Your task to perform on an android device: turn notification dots off Image 0: 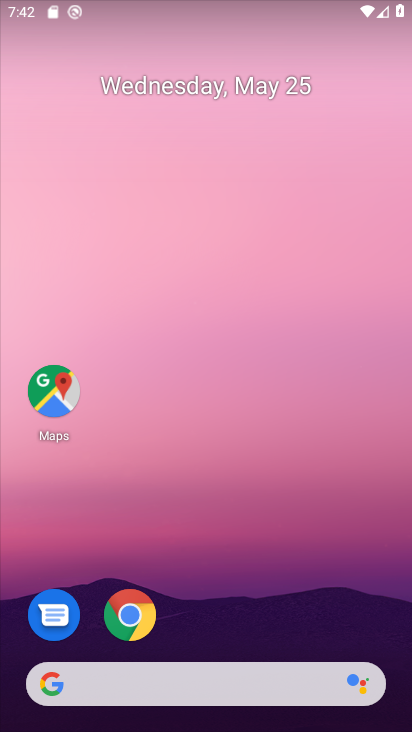
Step 0: drag from (240, 546) to (230, 64)
Your task to perform on an android device: turn notification dots off Image 1: 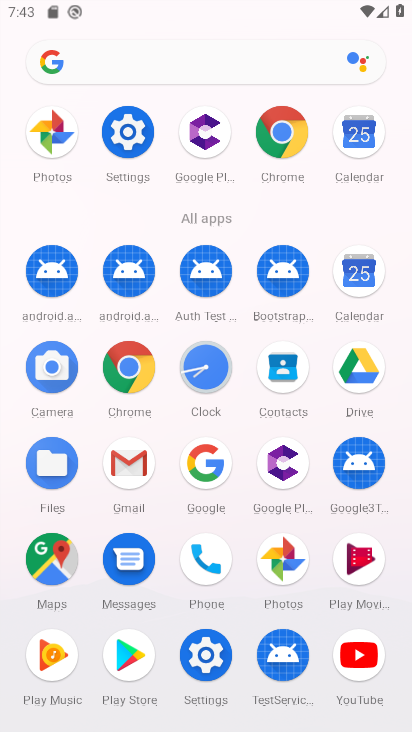
Step 1: click (127, 132)
Your task to perform on an android device: turn notification dots off Image 2: 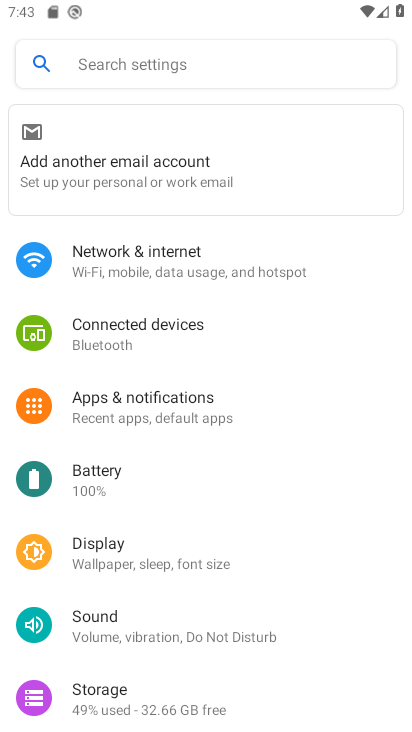
Step 2: click (198, 409)
Your task to perform on an android device: turn notification dots off Image 3: 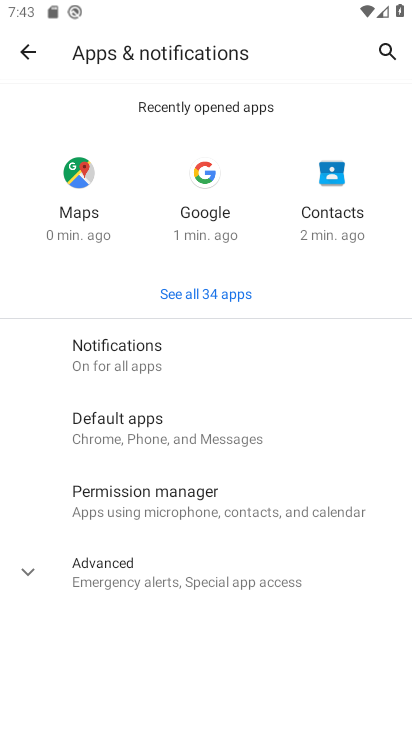
Step 3: click (36, 579)
Your task to perform on an android device: turn notification dots off Image 4: 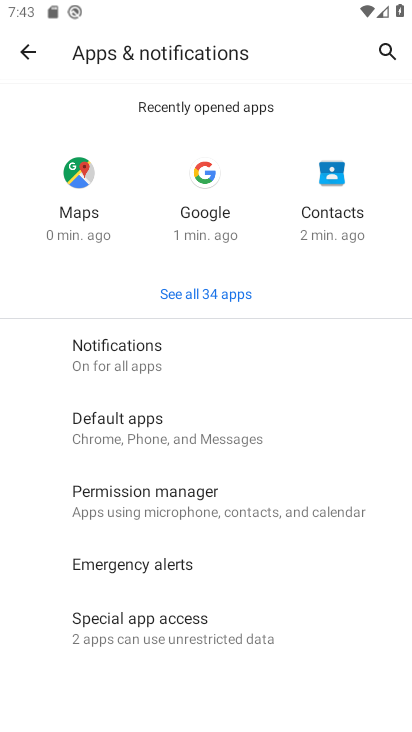
Step 4: click (165, 365)
Your task to perform on an android device: turn notification dots off Image 5: 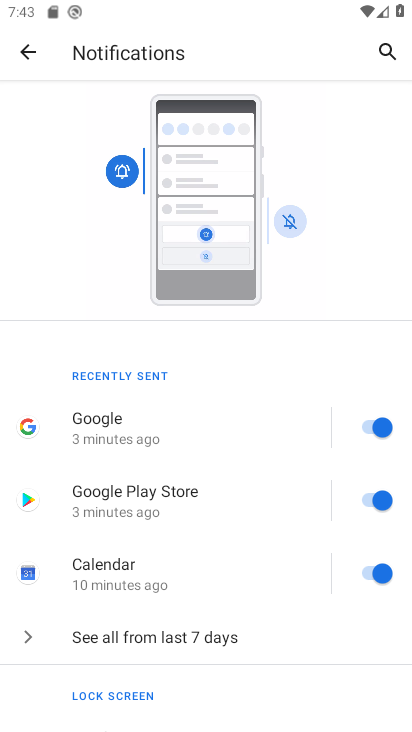
Step 5: drag from (228, 574) to (290, 138)
Your task to perform on an android device: turn notification dots off Image 6: 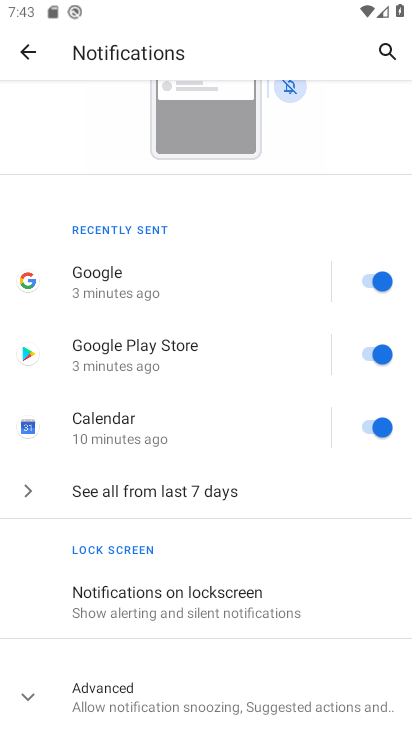
Step 6: click (45, 688)
Your task to perform on an android device: turn notification dots off Image 7: 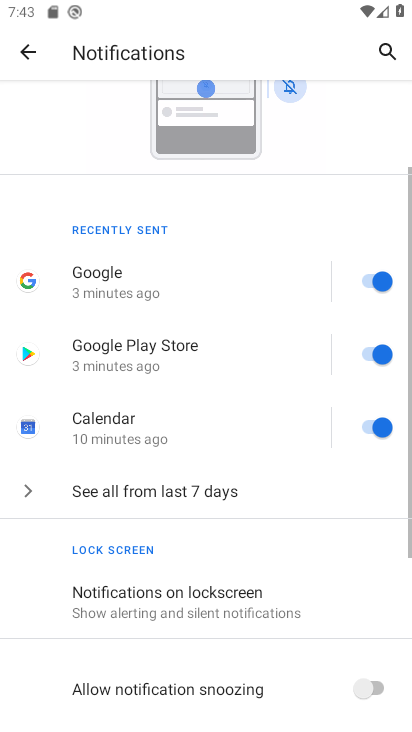
Step 7: drag from (270, 609) to (277, 237)
Your task to perform on an android device: turn notification dots off Image 8: 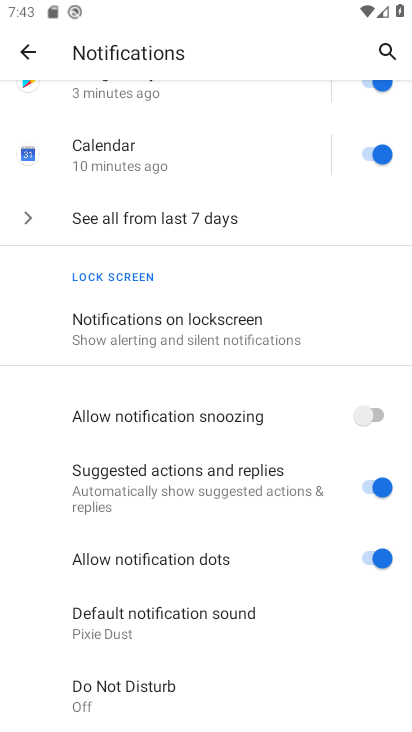
Step 8: click (368, 559)
Your task to perform on an android device: turn notification dots off Image 9: 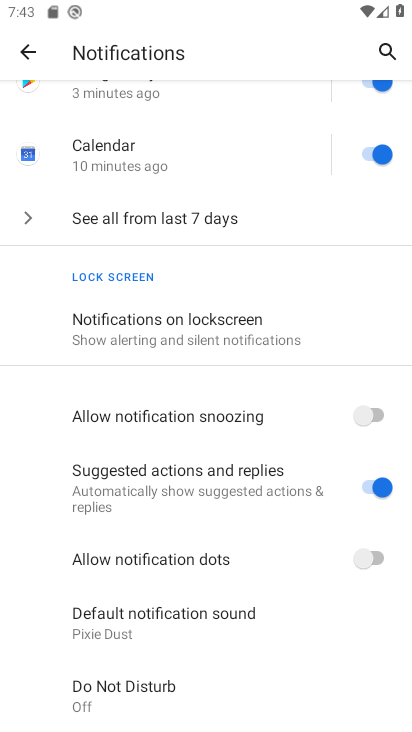
Step 9: task complete